Your task to perform on an android device: change the upload size in google photos Image 0: 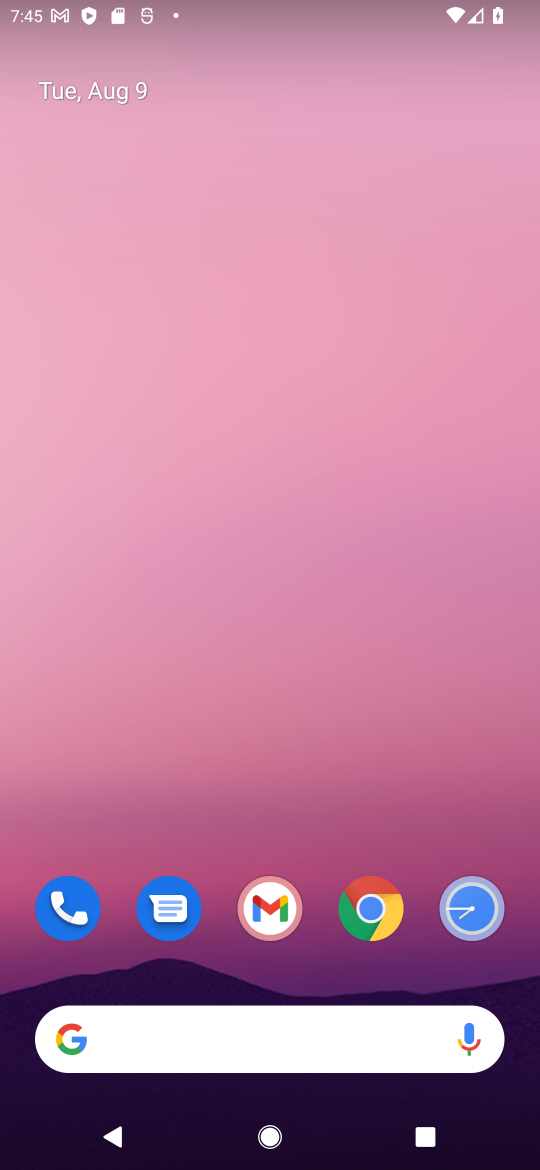
Step 0: drag from (305, 831) to (285, 94)
Your task to perform on an android device: change the upload size in google photos Image 1: 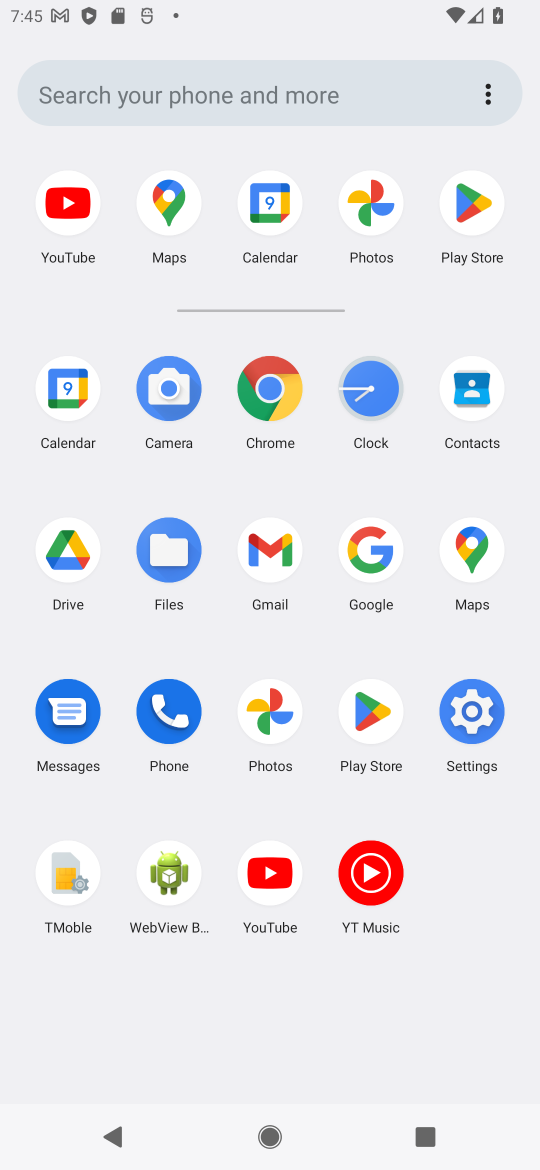
Step 1: click (257, 702)
Your task to perform on an android device: change the upload size in google photos Image 2: 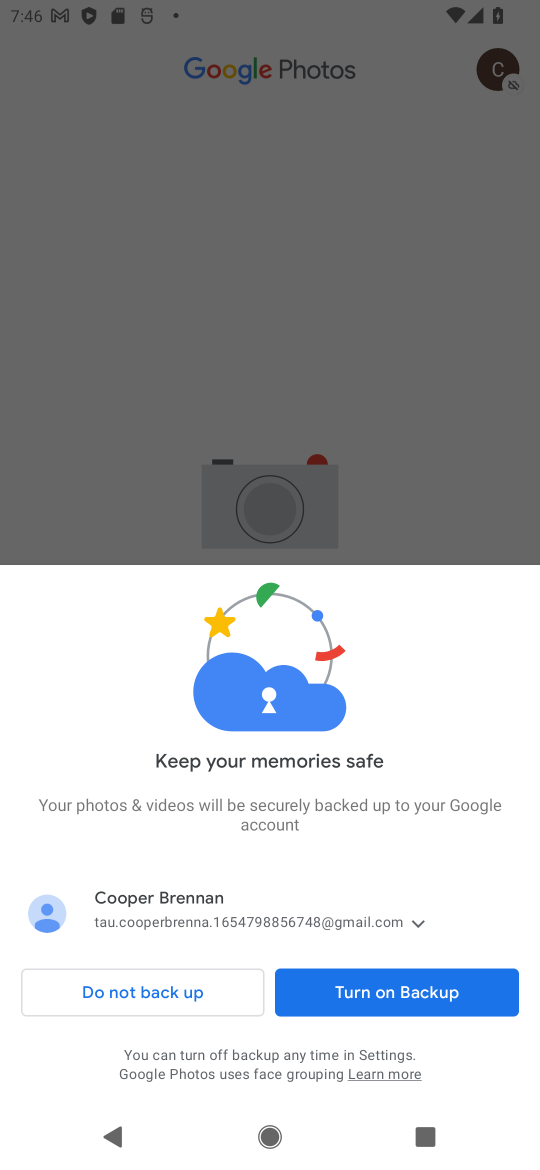
Step 2: click (188, 987)
Your task to perform on an android device: change the upload size in google photos Image 3: 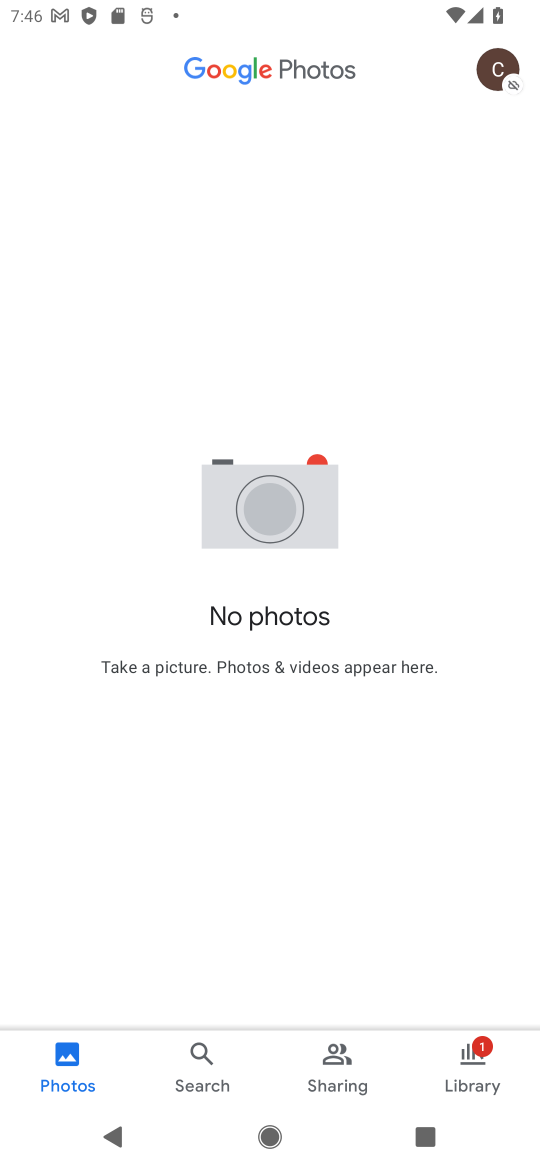
Step 3: click (504, 70)
Your task to perform on an android device: change the upload size in google photos Image 4: 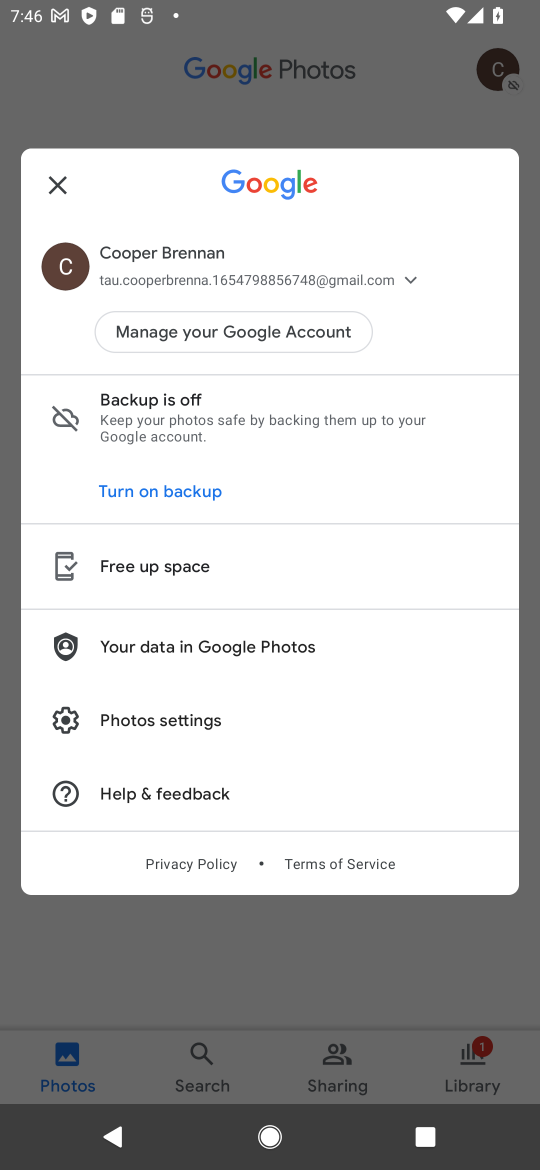
Step 4: click (163, 720)
Your task to perform on an android device: change the upload size in google photos Image 5: 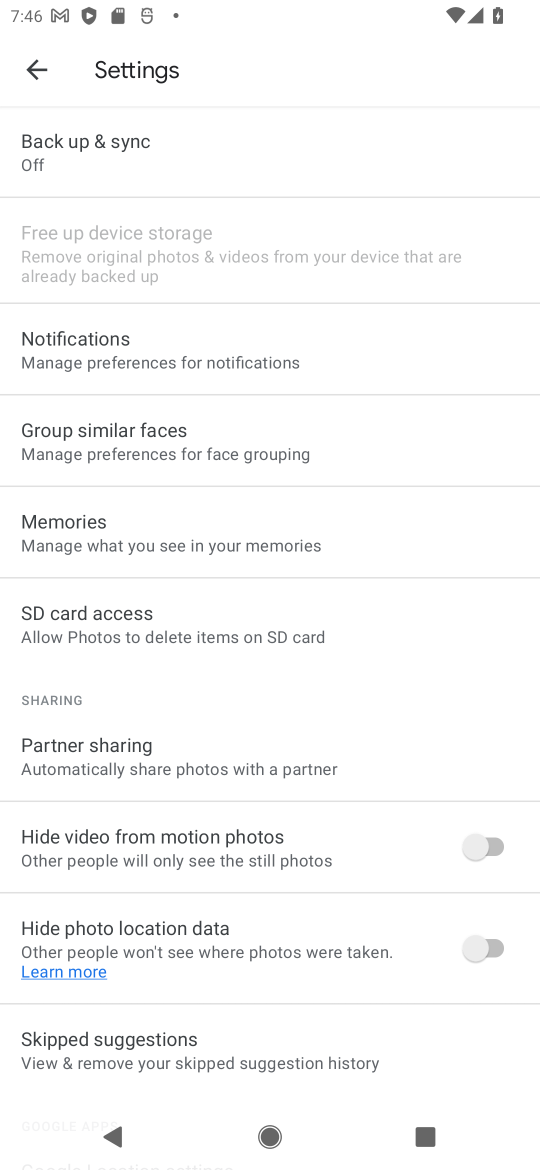
Step 5: click (103, 151)
Your task to perform on an android device: change the upload size in google photos Image 6: 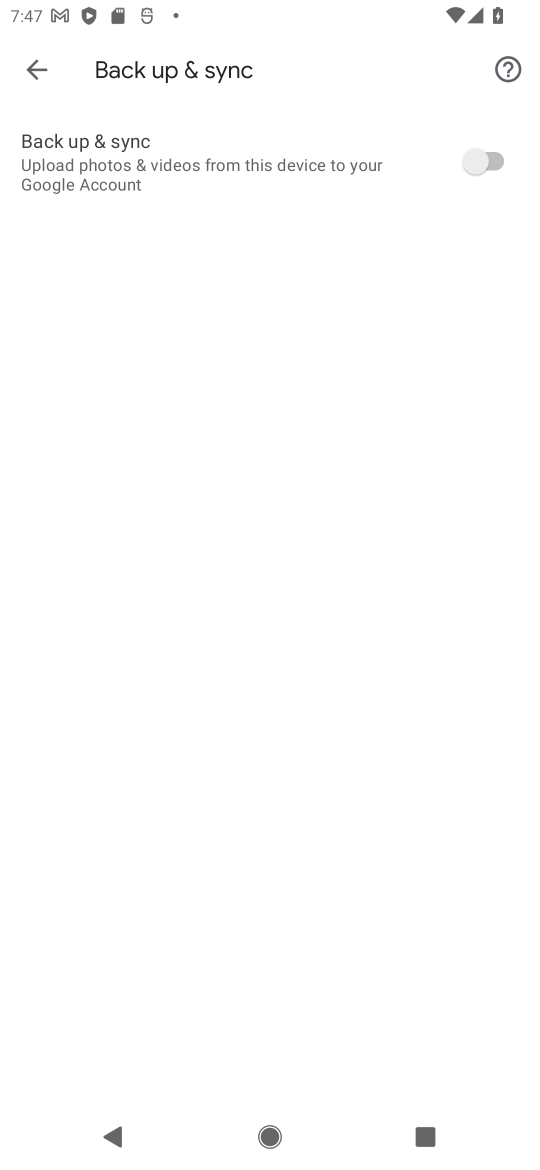
Step 6: click (488, 154)
Your task to perform on an android device: change the upload size in google photos Image 7: 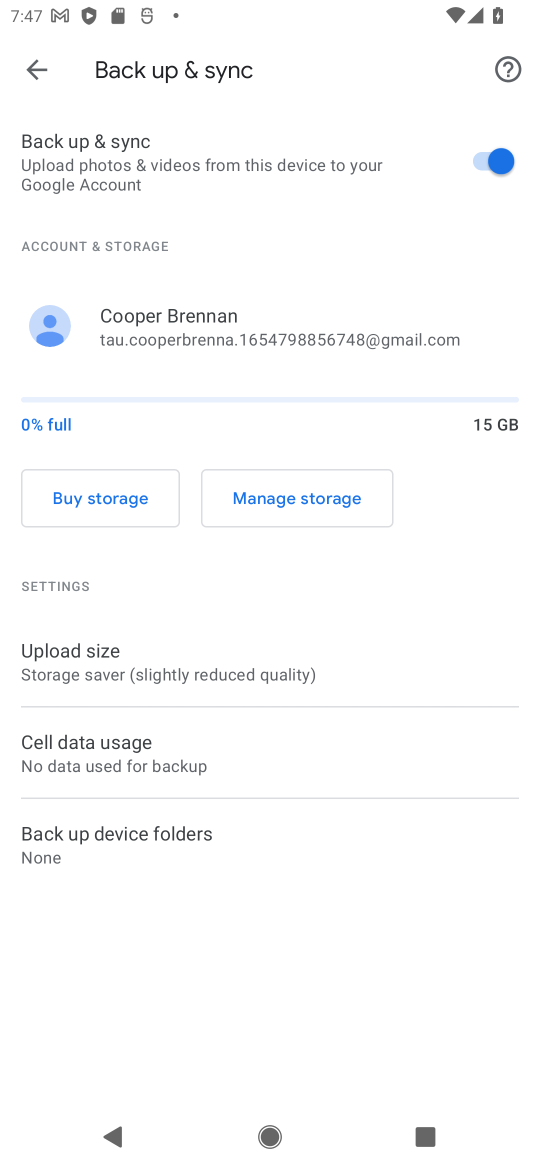
Step 7: click (127, 657)
Your task to perform on an android device: change the upload size in google photos Image 8: 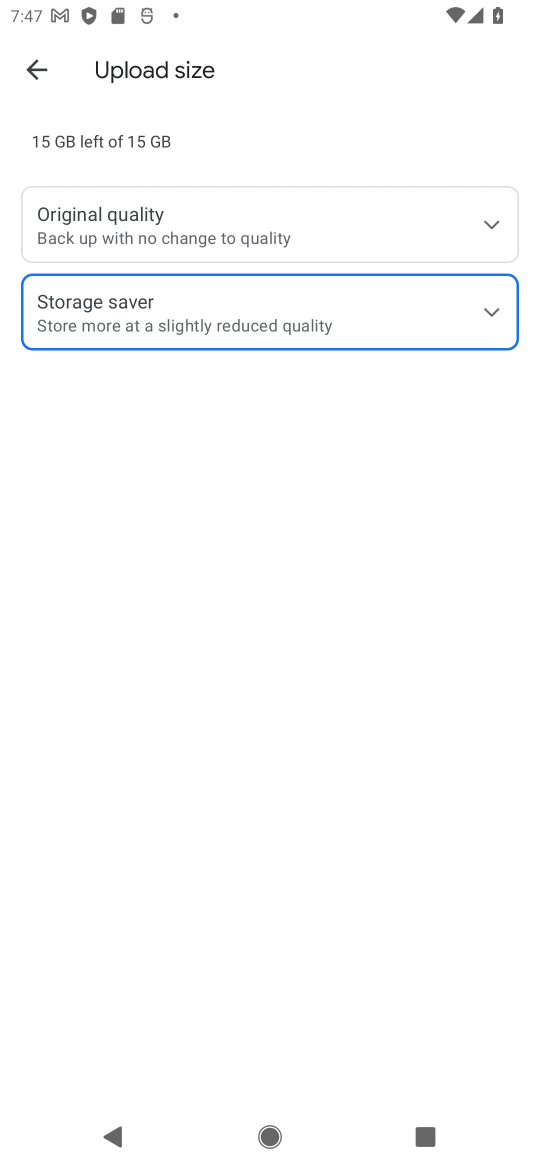
Step 8: click (484, 224)
Your task to perform on an android device: change the upload size in google photos Image 9: 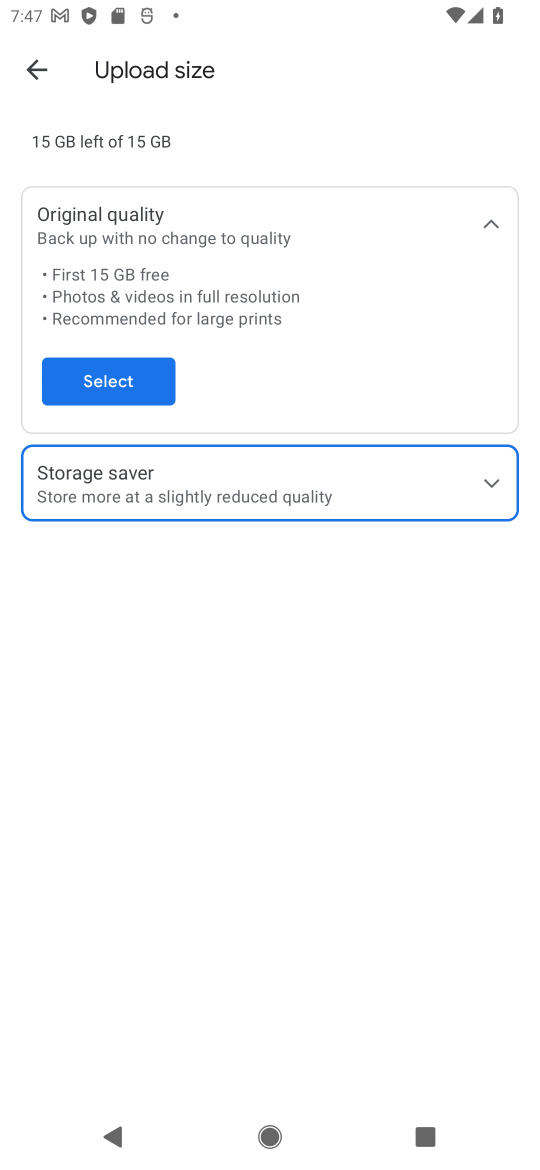
Step 9: click (105, 371)
Your task to perform on an android device: change the upload size in google photos Image 10: 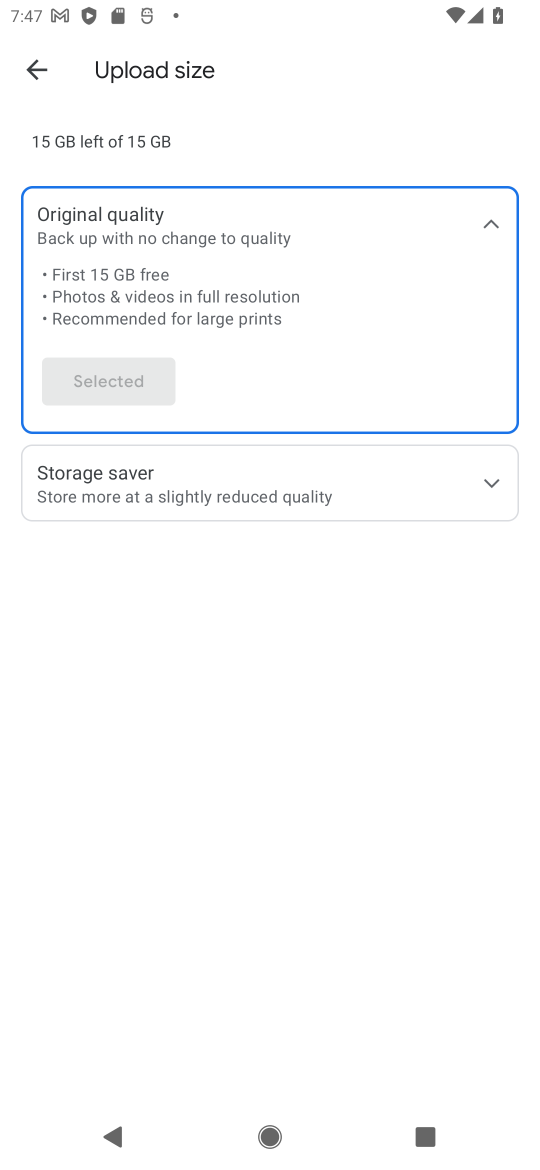
Step 10: task complete